Your task to perform on an android device: toggle javascript in the chrome app Image 0: 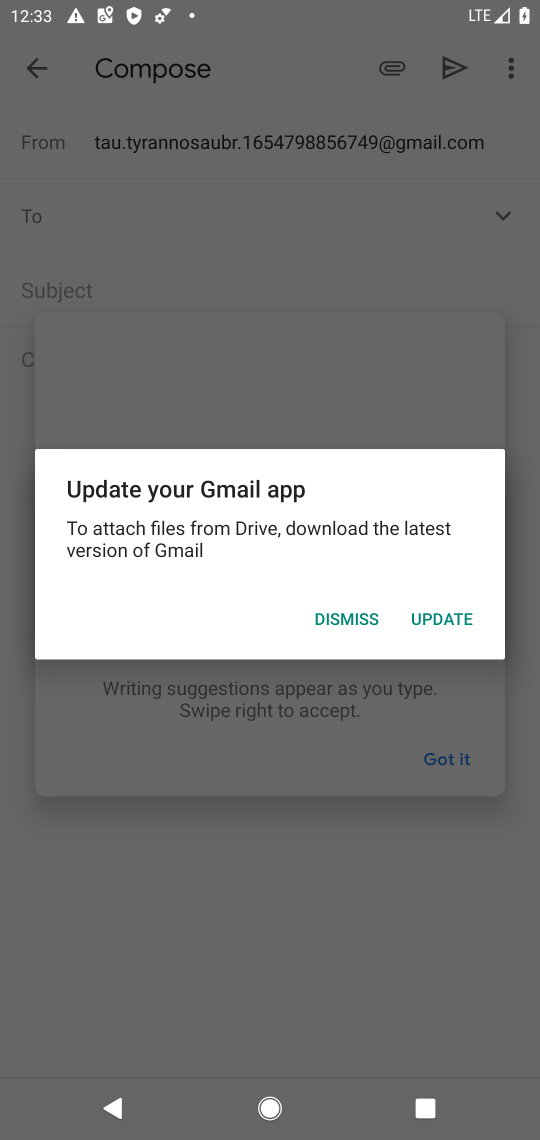
Step 0: press home button
Your task to perform on an android device: toggle javascript in the chrome app Image 1: 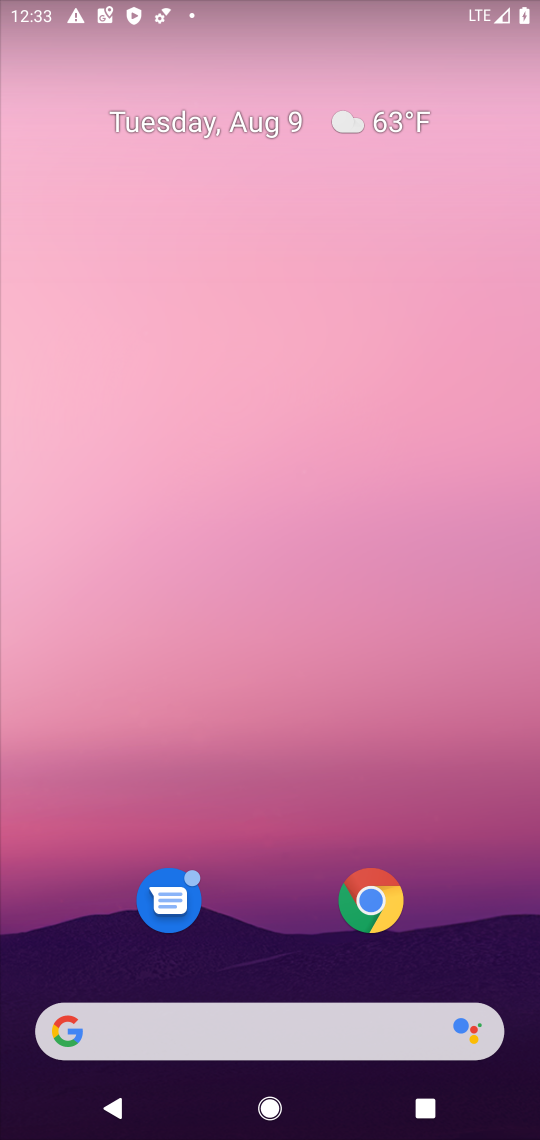
Step 1: drag from (469, 955) to (486, 184)
Your task to perform on an android device: toggle javascript in the chrome app Image 2: 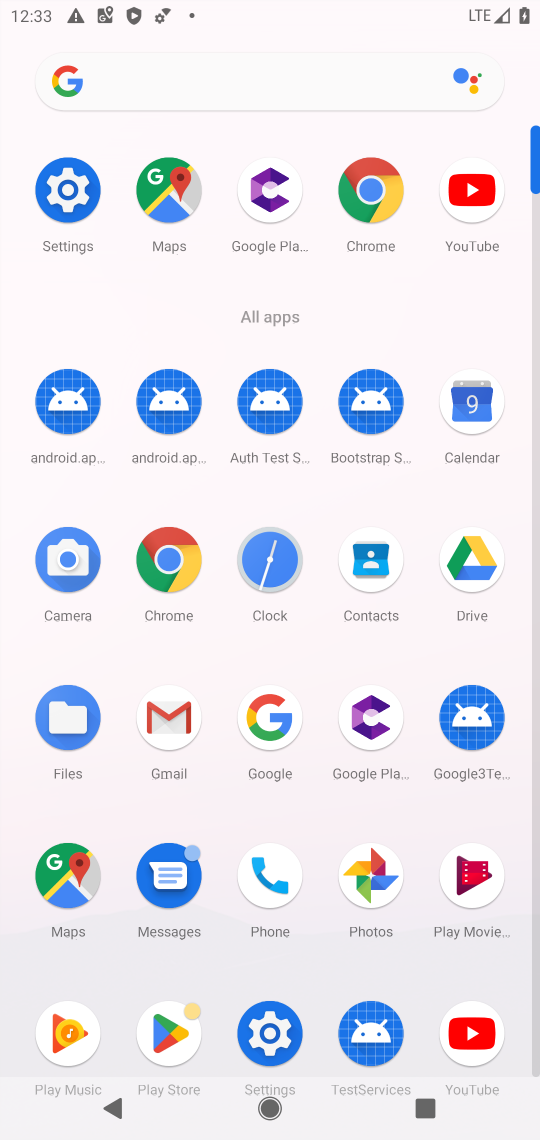
Step 2: click (172, 565)
Your task to perform on an android device: toggle javascript in the chrome app Image 3: 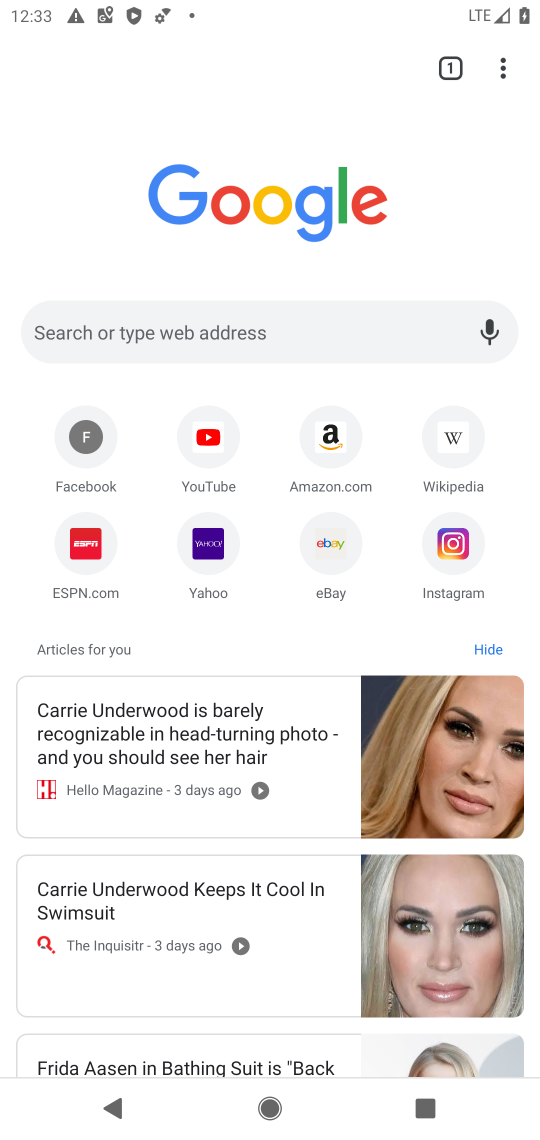
Step 3: click (504, 67)
Your task to perform on an android device: toggle javascript in the chrome app Image 4: 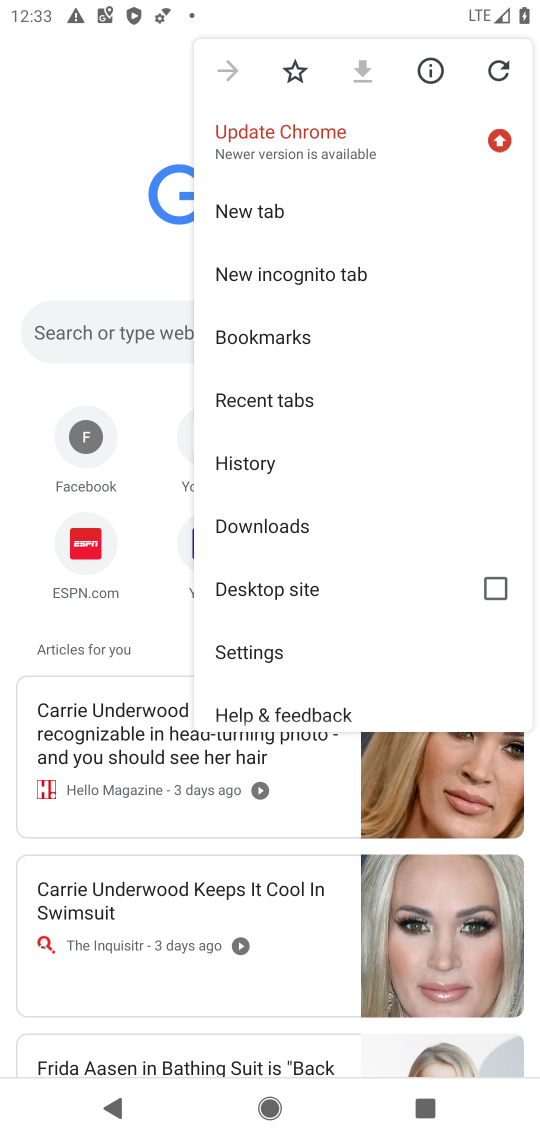
Step 4: click (272, 649)
Your task to perform on an android device: toggle javascript in the chrome app Image 5: 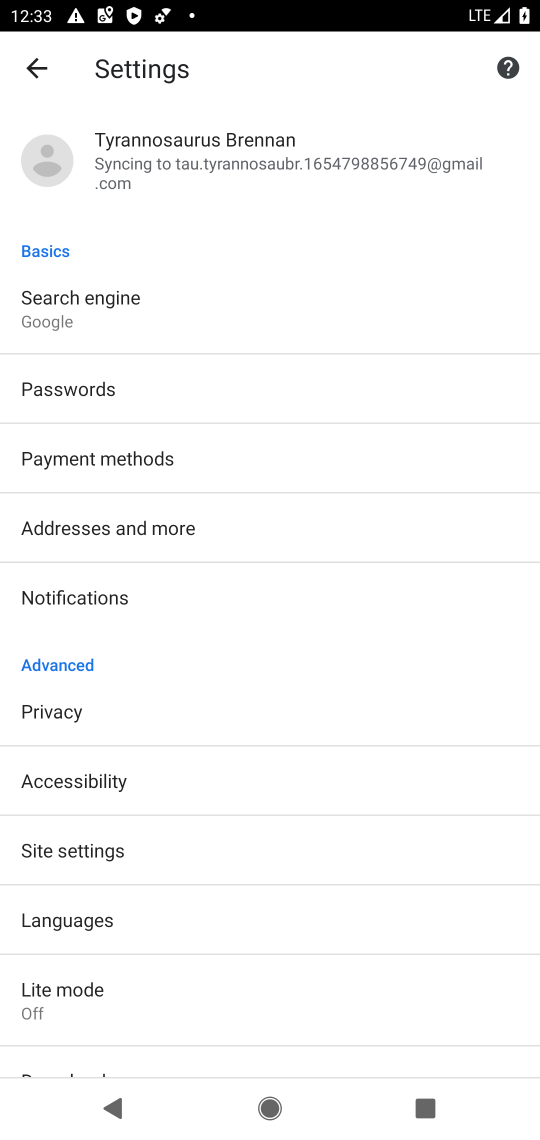
Step 5: drag from (392, 791) to (397, 524)
Your task to perform on an android device: toggle javascript in the chrome app Image 6: 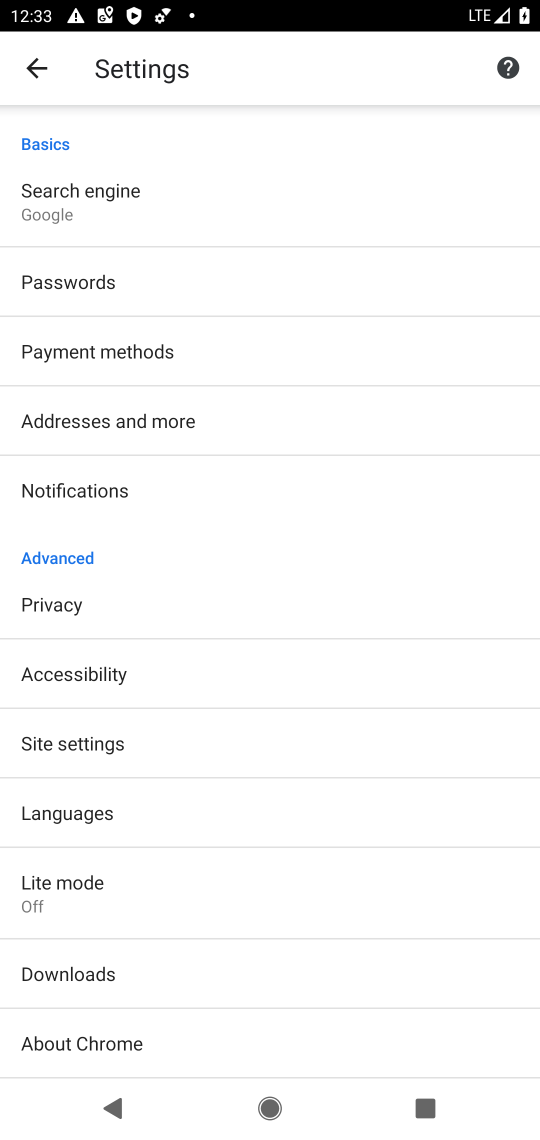
Step 6: click (217, 729)
Your task to perform on an android device: toggle javascript in the chrome app Image 7: 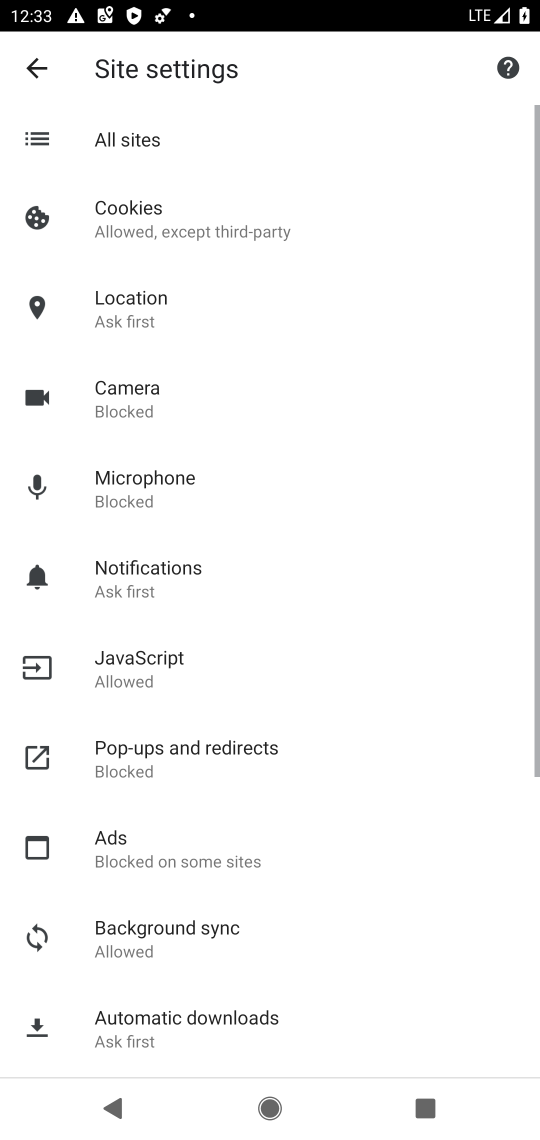
Step 7: drag from (396, 825) to (436, 507)
Your task to perform on an android device: toggle javascript in the chrome app Image 8: 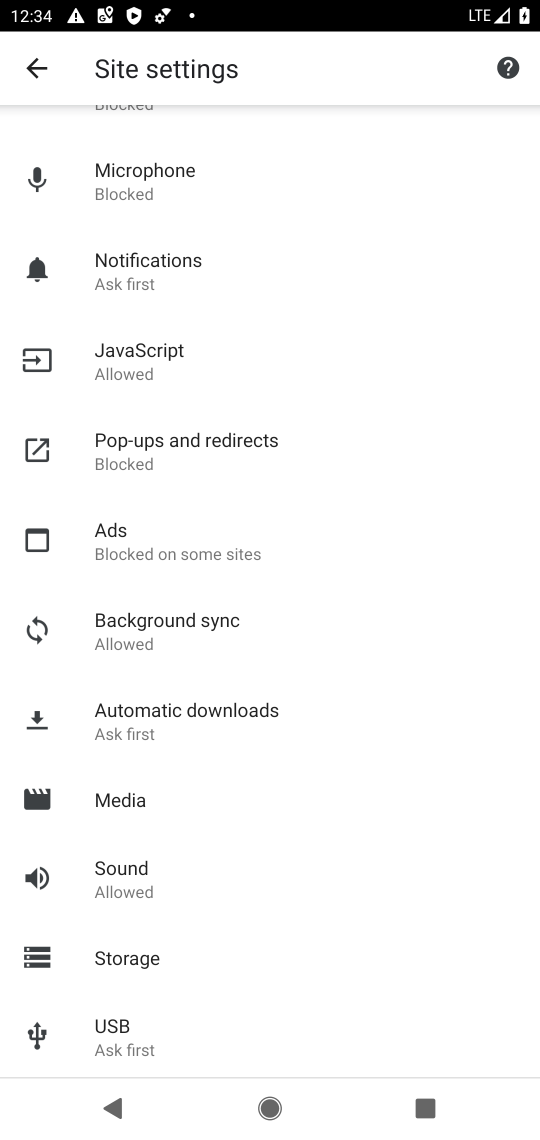
Step 8: drag from (401, 824) to (432, 500)
Your task to perform on an android device: toggle javascript in the chrome app Image 9: 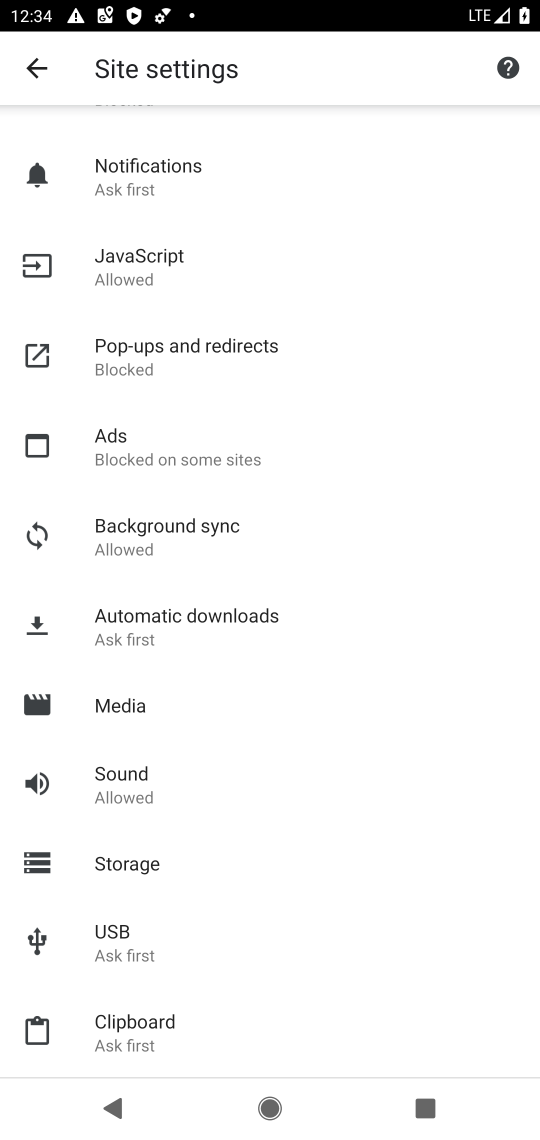
Step 9: drag from (398, 333) to (426, 701)
Your task to perform on an android device: toggle javascript in the chrome app Image 10: 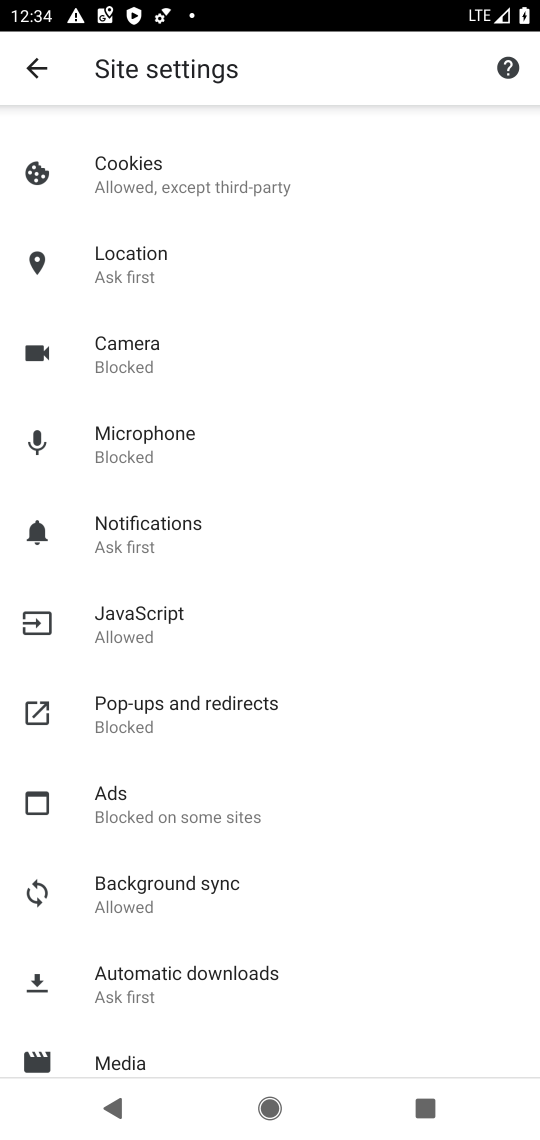
Step 10: drag from (415, 293) to (409, 628)
Your task to perform on an android device: toggle javascript in the chrome app Image 11: 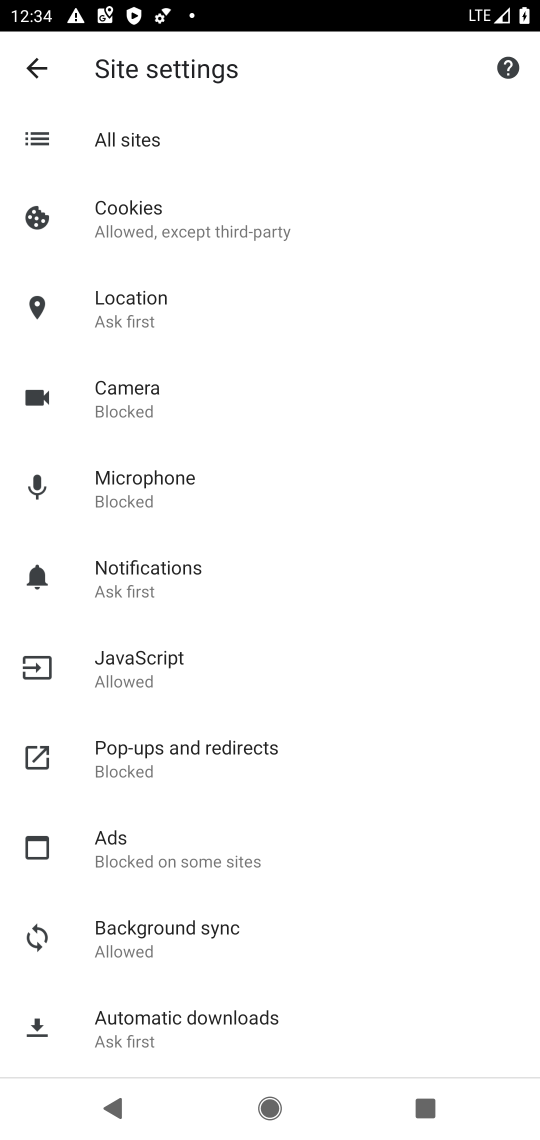
Step 11: drag from (418, 266) to (429, 625)
Your task to perform on an android device: toggle javascript in the chrome app Image 12: 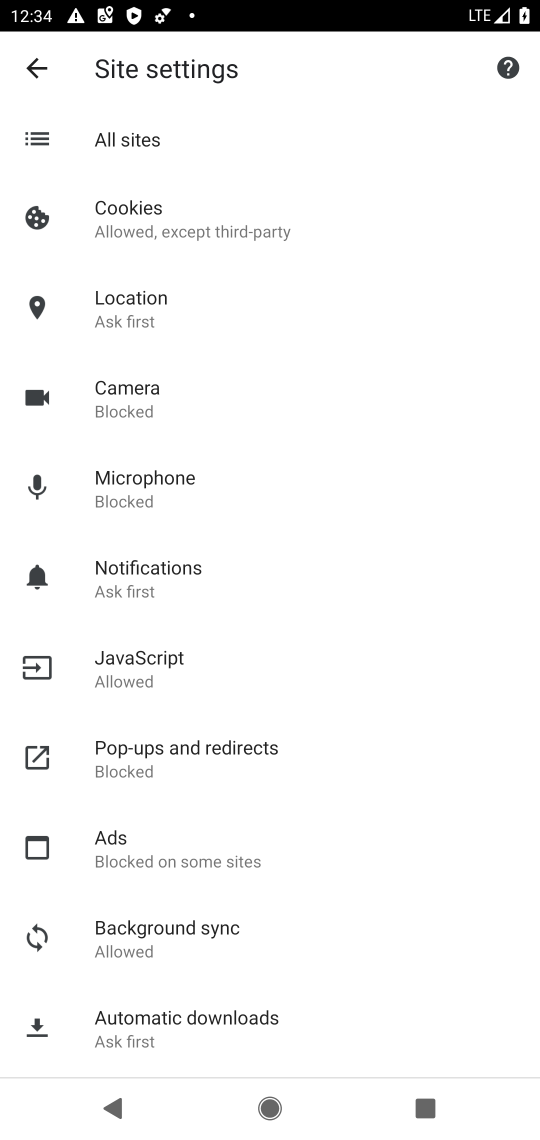
Step 12: click (134, 671)
Your task to perform on an android device: toggle javascript in the chrome app Image 13: 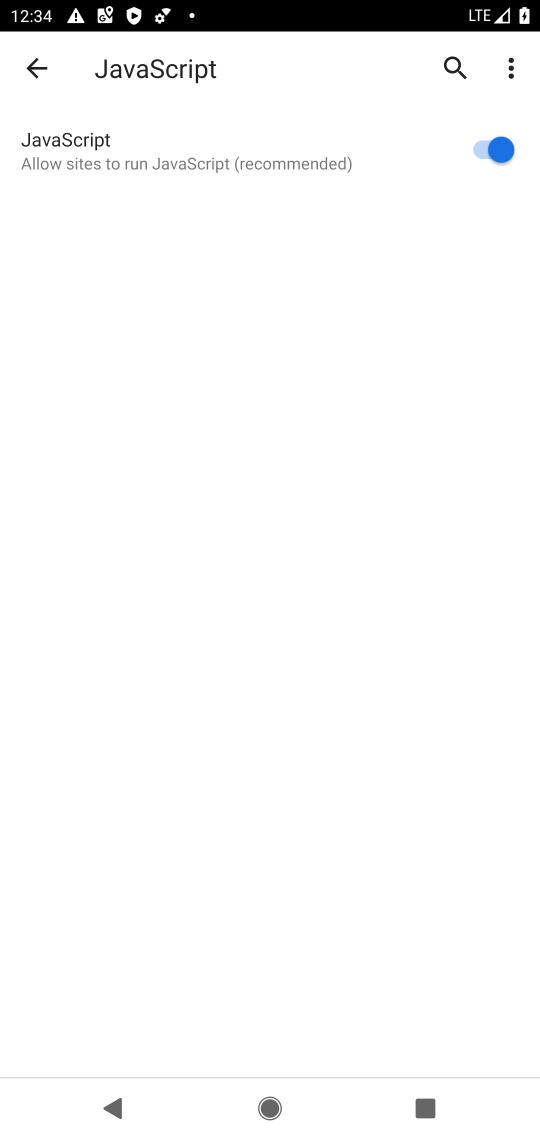
Step 13: click (496, 150)
Your task to perform on an android device: toggle javascript in the chrome app Image 14: 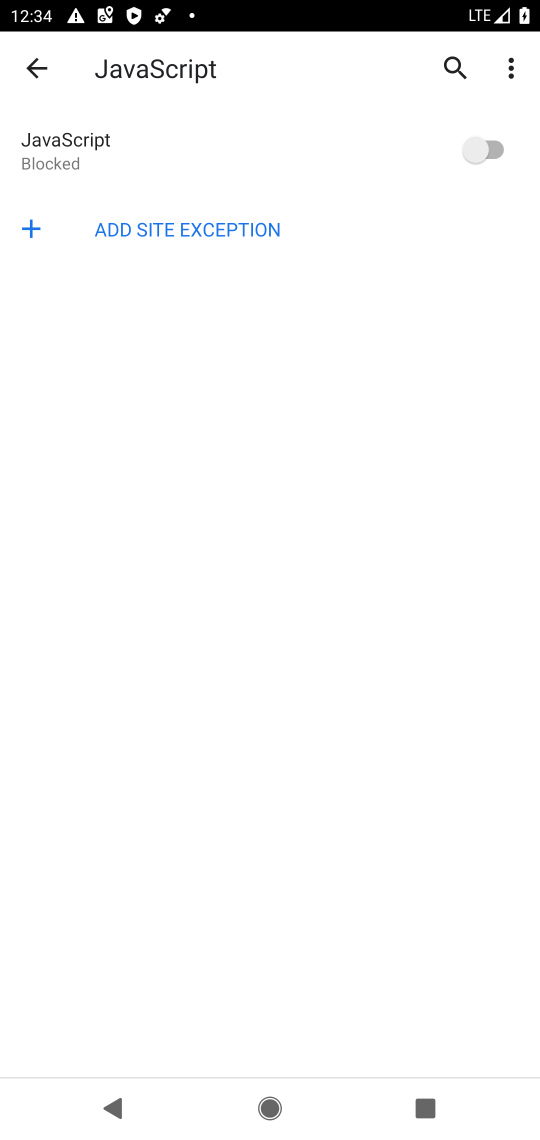
Step 14: task complete